Your task to perform on an android device: turn on airplane mode Image 0: 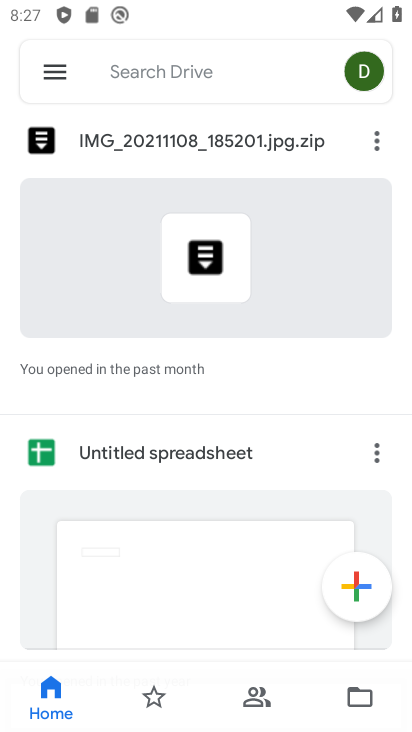
Step 0: press back button
Your task to perform on an android device: turn on airplane mode Image 1: 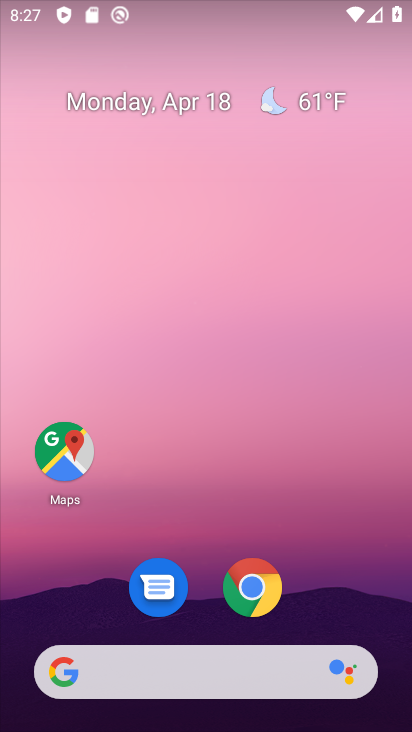
Step 1: drag from (209, 723) to (181, 91)
Your task to perform on an android device: turn on airplane mode Image 2: 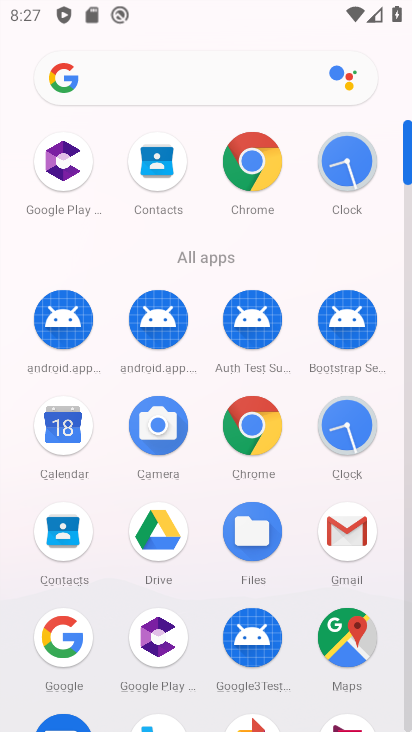
Step 2: drag from (203, 591) to (181, 127)
Your task to perform on an android device: turn on airplane mode Image 3: 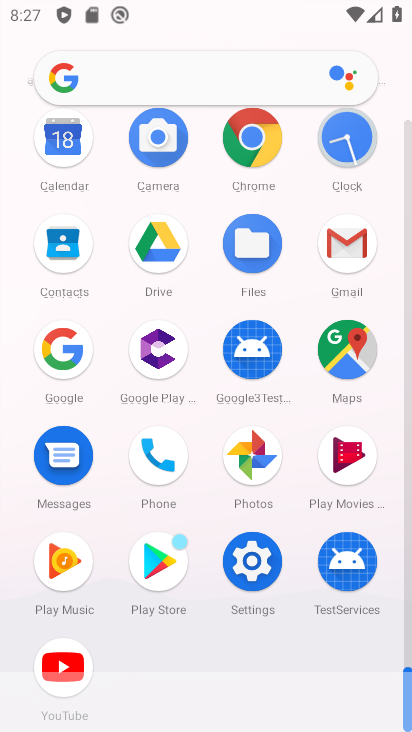
Step 3: click (258, 568)
Your task to perform on an android device: turn on airplane mode Image 4: 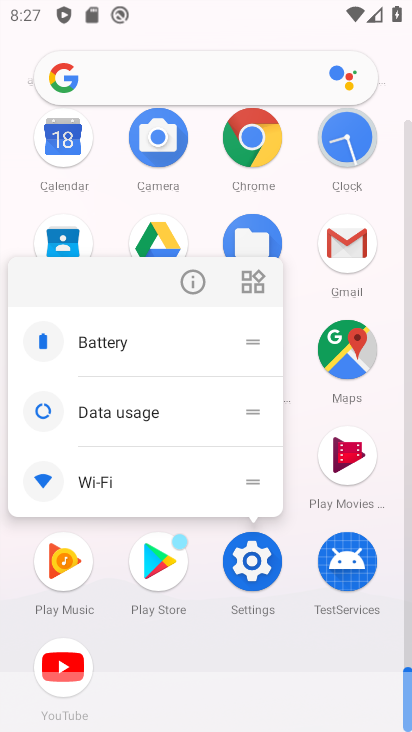
Step 4: click (269, 546)
Your task to perform on an android device: turn on airplane mode Image 5: 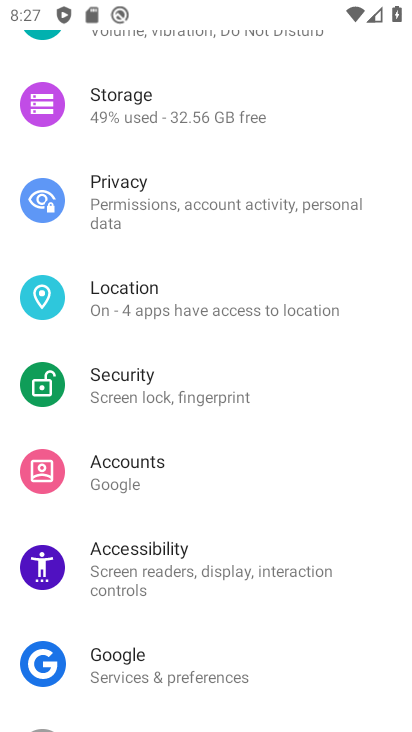
Step 5: drag from (216, 89) to (215, 529)
Your task to perform on an android device: turn on airplane mode Image 6: 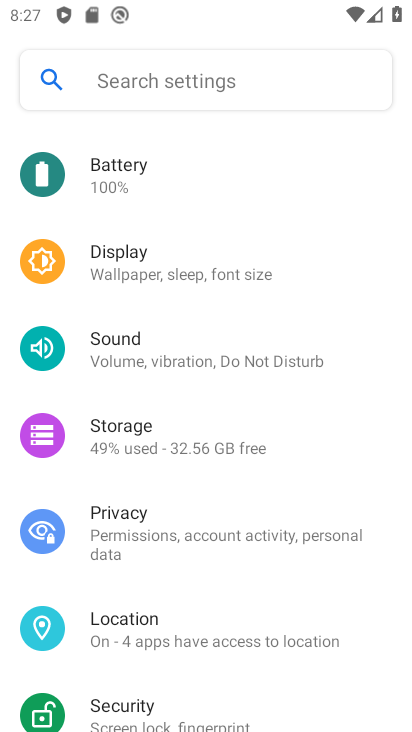
Step 6: drag from (207, 139) to (202, 598)
Your task to perform on an android device: turn on airplane mode Image 7: 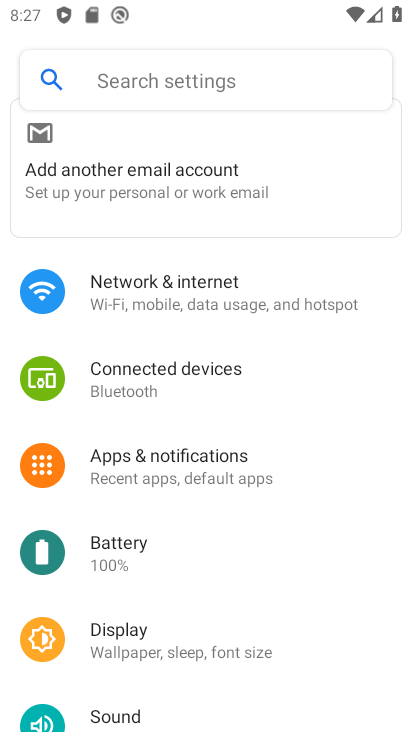
Step 7: click (169, 294)
Your task to perform on an android device: turn on airplane mode Image 8: 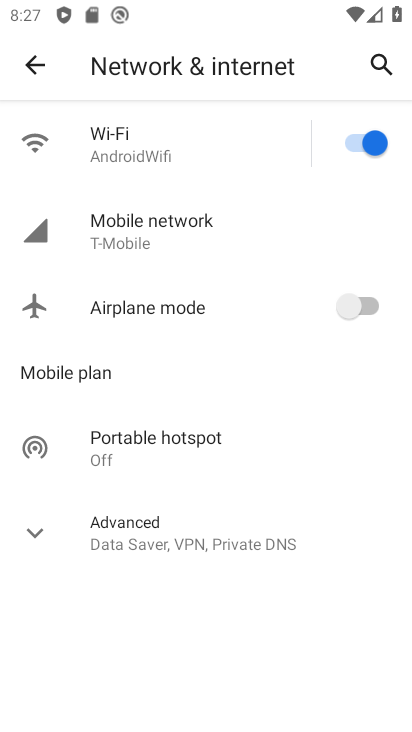
Step 8: click (362, 304)
Your task to perform on an android device: turn on airplane mode Image 9: 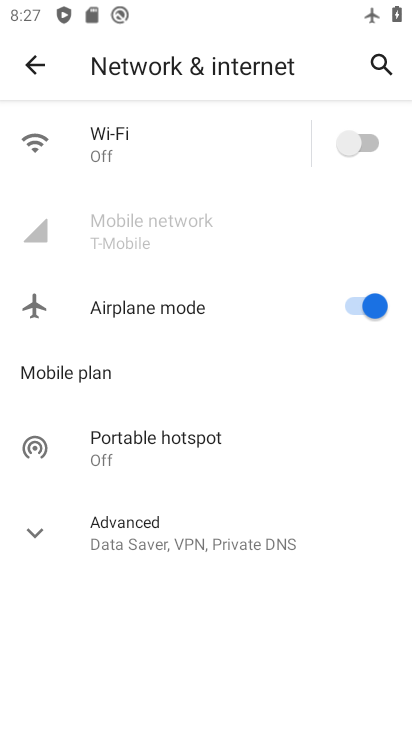
Step 9: task complete